Your task to perform on an android device: Set the phone to "Do not disturb". Image 0: 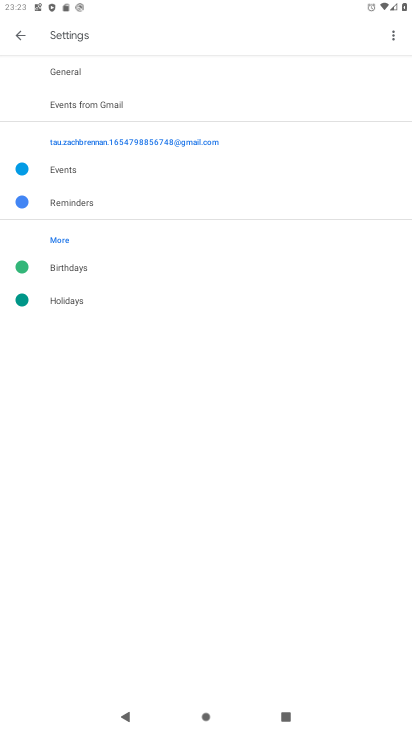
Step 0: press home button
Your task to perform on an android device: Set the phone to "Do not disturb". Image 1: 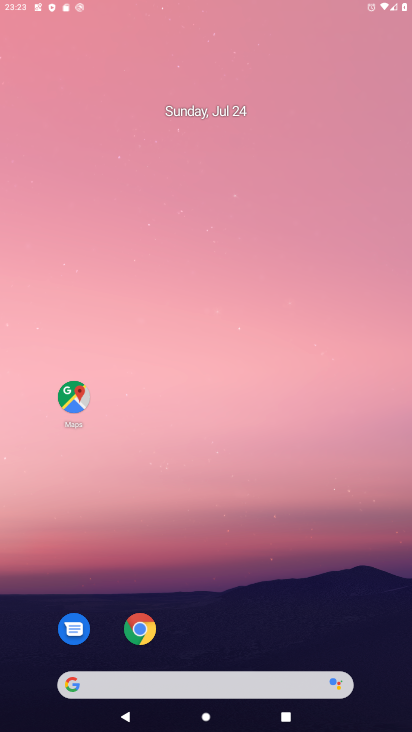
Step 1: drag from (145, 611) to (200, 207)
Your task to perform on an android device: Set the phone to "Do not disturb". Image 2: 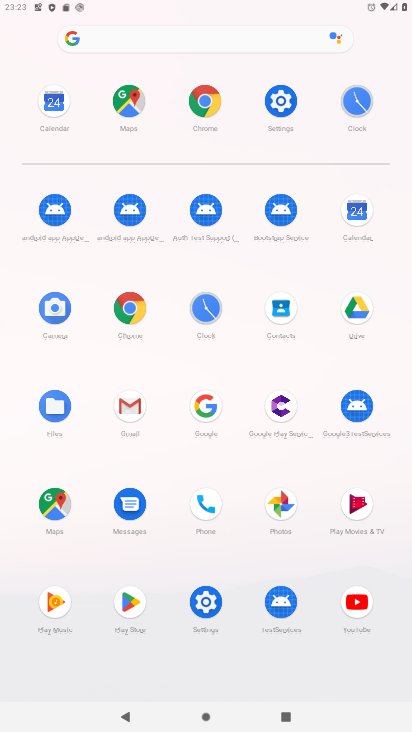
Step 2: click (206, 596)
Your task to perform on an android device: Set the phone to "Do not disturb". Image 3: 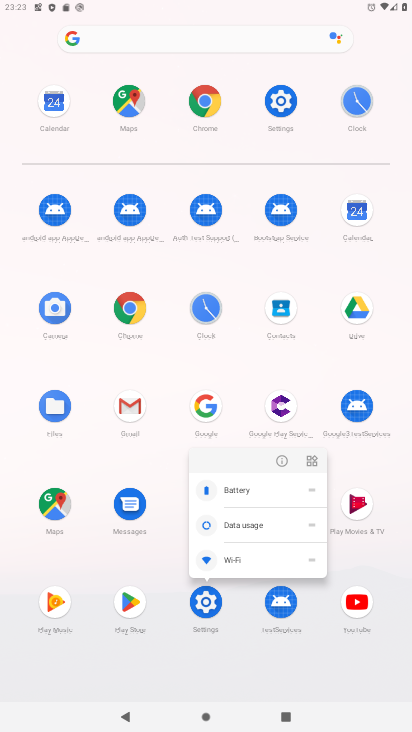
Step 3: click (282, 459)
Your task to perform on an android device: Set the phone to "Do not disturb". Image 4: 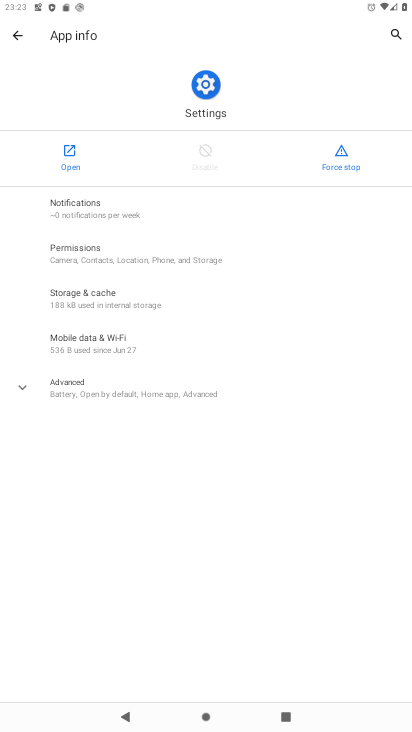
Step 4: click (77, 153)
Your task to perform on an android device: Set the phone to "Do not disturb". Image 5: 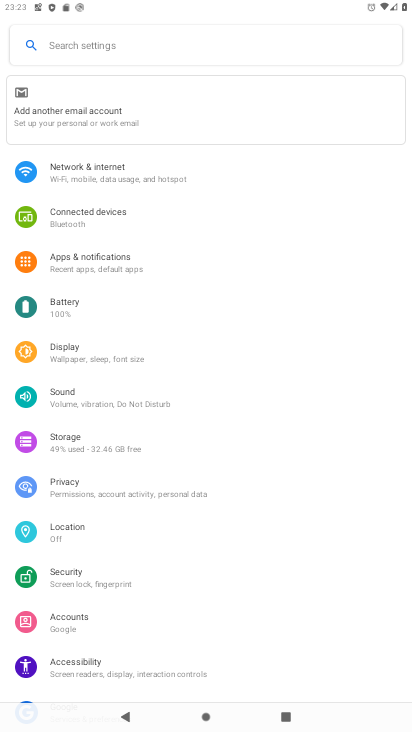
Step 5: click (132, 260)
Your task to perform on an android device: Set the phone to "Do not disturb". Image 6: 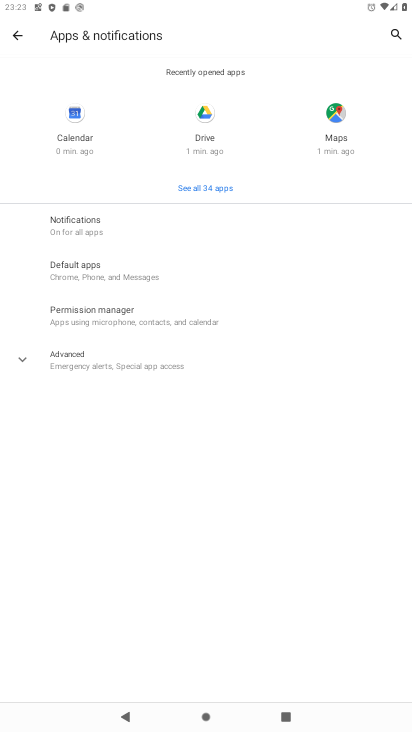
Step 6: click (101, 358)
Your task to perform on an android device: Set the phone to "Do not disturb". Image 7: 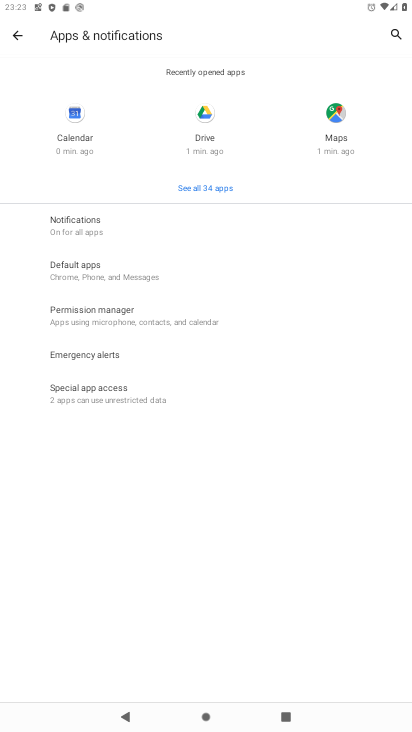
Step 7: click (112, 224)
Your task to perform on an android device: Set the phone to "Do not disturb". Image 8: 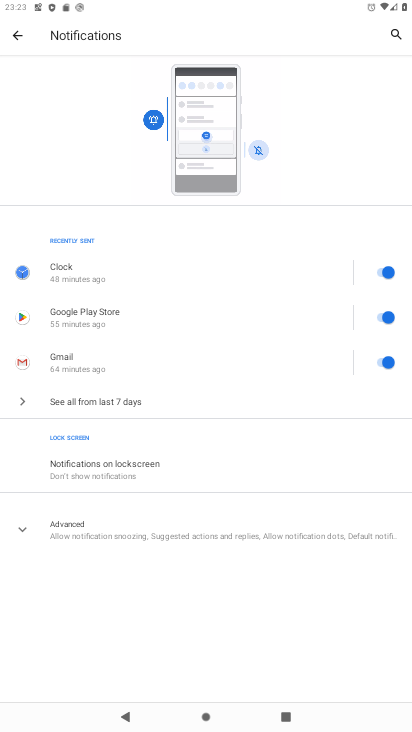
Step 8: click (60, 529)
Your task to perform on an android device: Set the phone to "Do not disturb". Image 9: 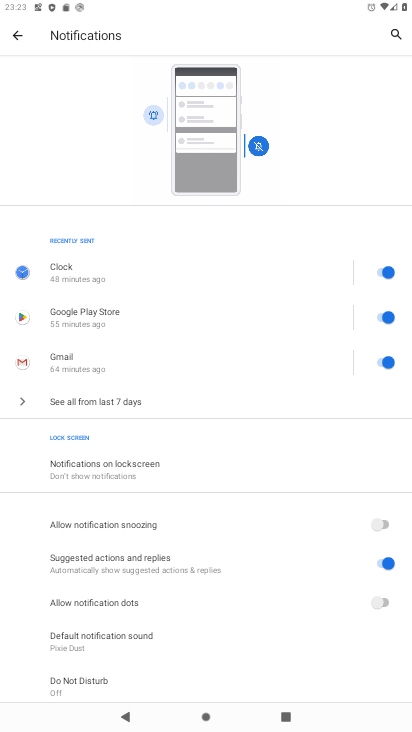
Step 9: drag from (145, 553) to (201, 317)
Your task to perform on an android device: Set the phone to "Do not disturb". Image 10: 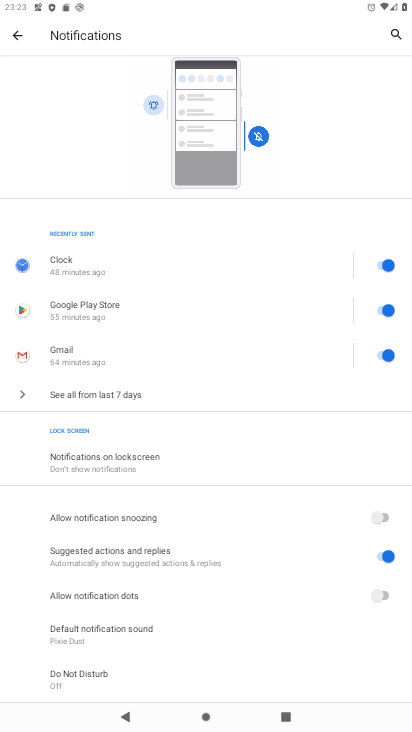
Step 10: click (91, 679)
Your task to perform on an android device: Set the phone to "Do not disturb". Image 11: 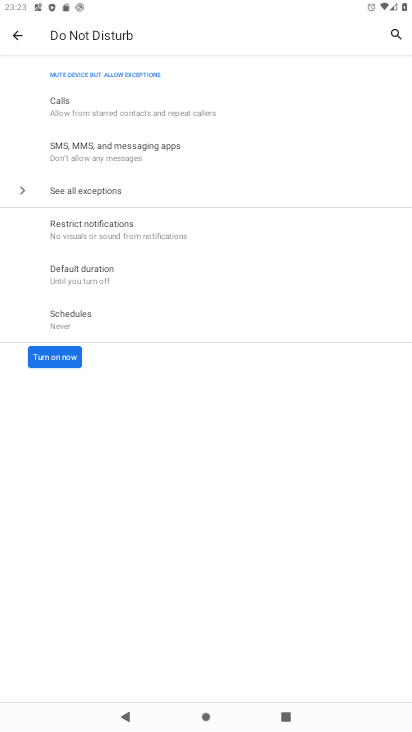
Step 11: click (61, 358)
Your task to perform on an android device: Set the phone to "Do not disturb". Image 12: 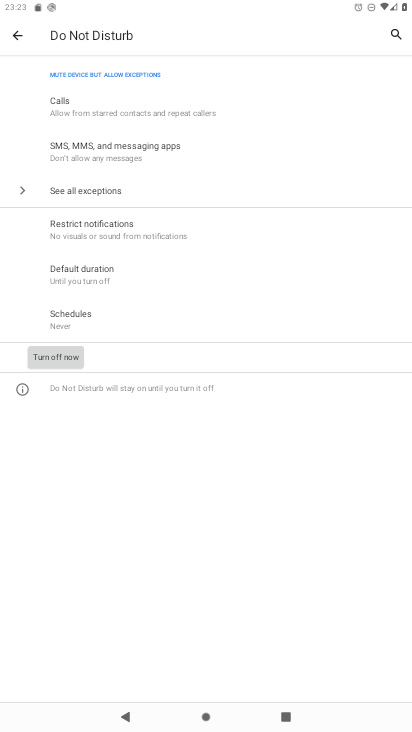
Step 12: task complete